Your task to perform on an android device: show emergency info Image 0: 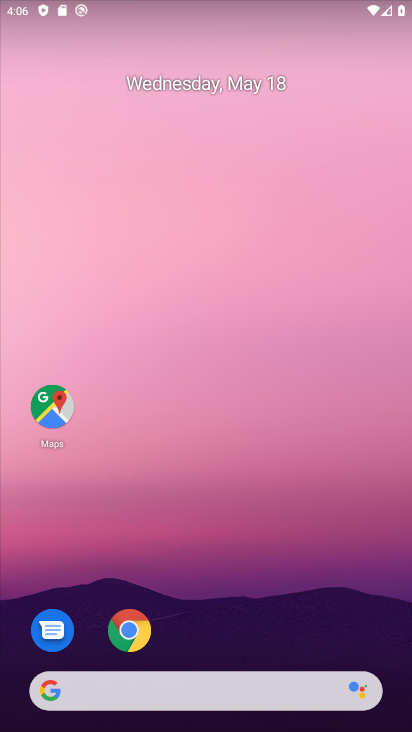
Step 0: drag from (271, 711) to (297, 166)
Your task to perform on an android device: show emergency info Image 1: 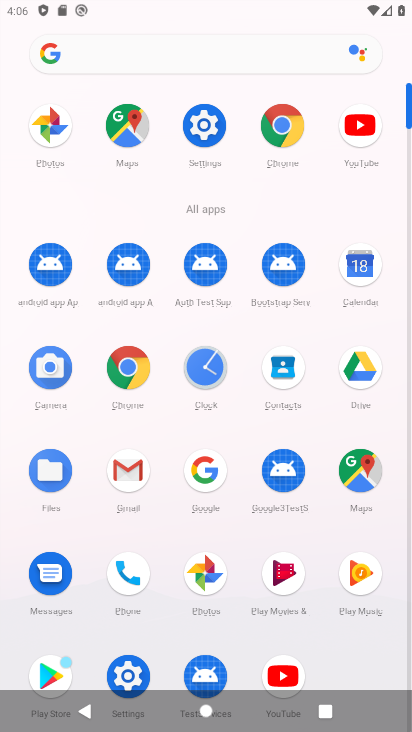
Step 1: click (215, 129)
Your task to perform on an android device: show emergency info Image 2: 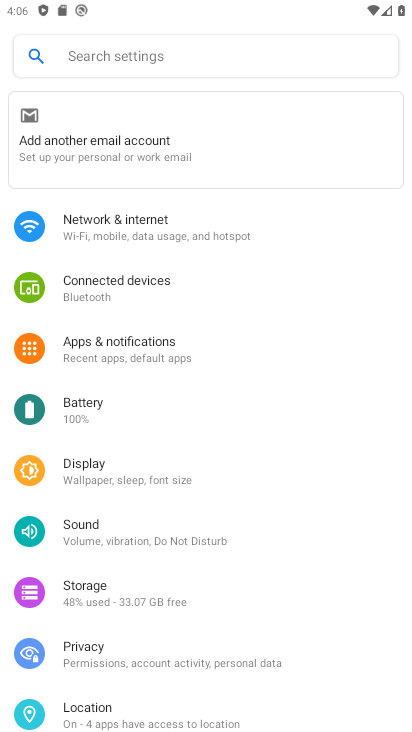
Step 2: click (118, 57)
Your task to perform on an android device: show emergency info Image 3: 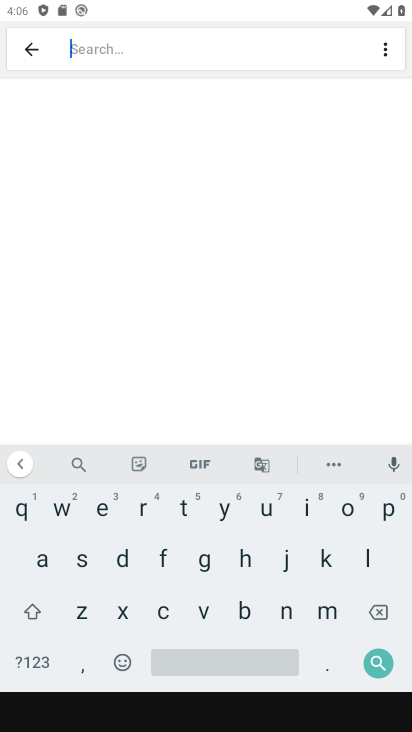
Step 3: click (76, 48)
Your task to perform on an android device: show emergency info Image 4: 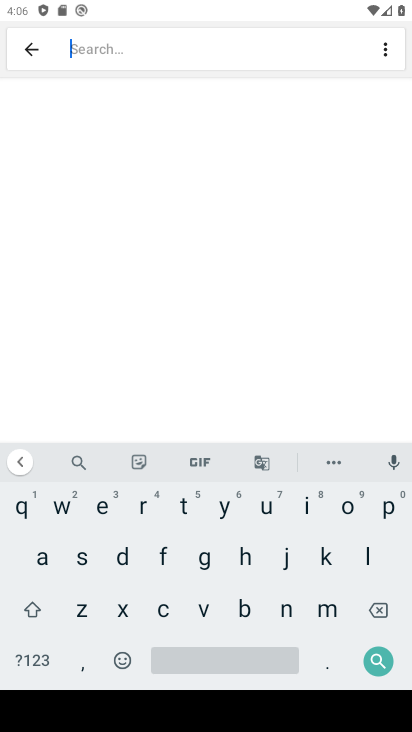
Step 4: click (99, 514)
Your task to perform on an android device: show emergency info Image 5: 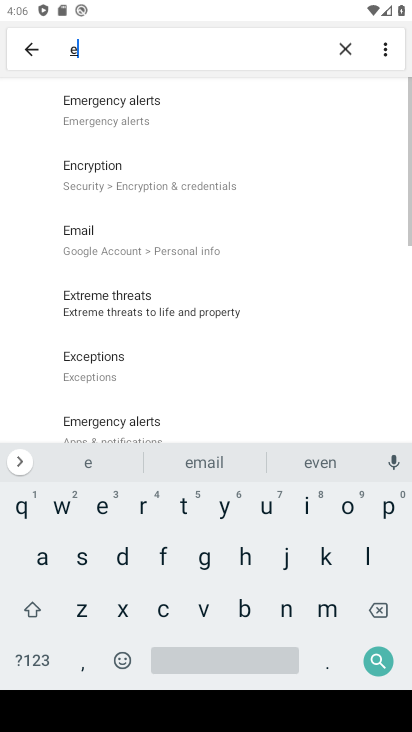
Step 5: click (320, 611)
Your task to perform on an android device: show emergency info Image 6: 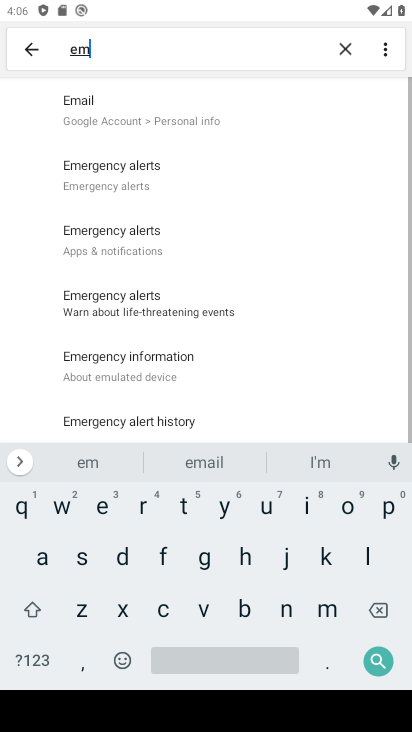
Step 6: click (101, 510)
Your task to perform on an android device: show emergency info Image 7: 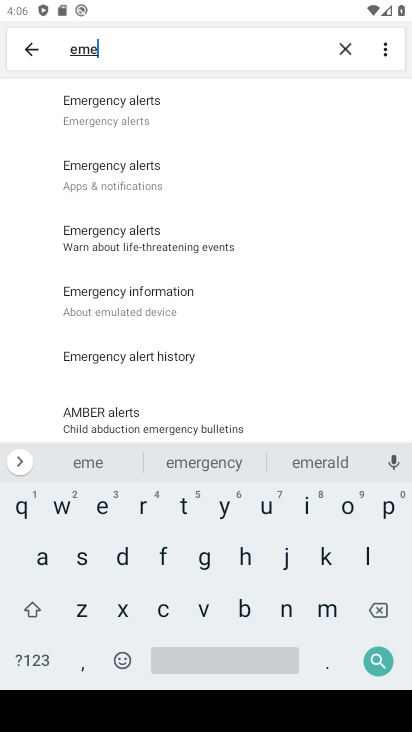
Step 7: click (208, 460)
Your task to perform on an android device: show emergency info Image 8: 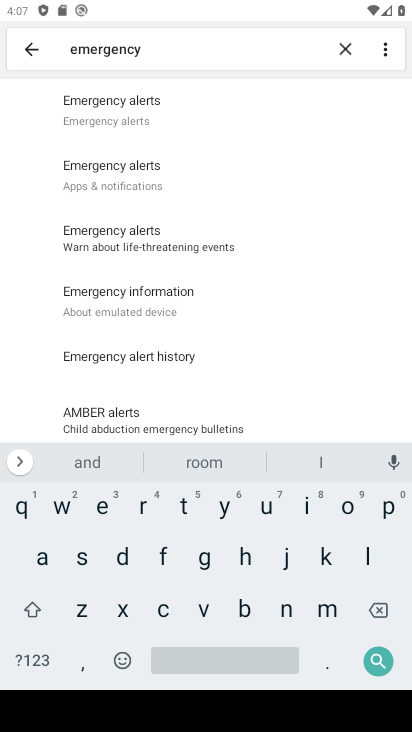
Step 8: click (307, 505)
Your task to perform on an android device: show emergency info Image 9: 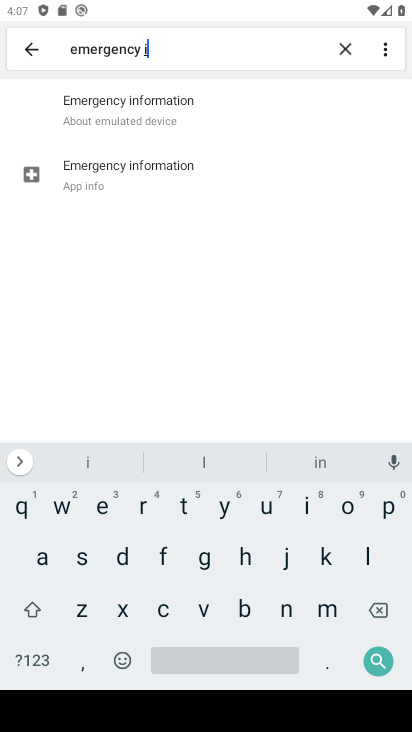
Step 9: click (147, 121)
Your task to perform on an android device: show emergency info Image 10: 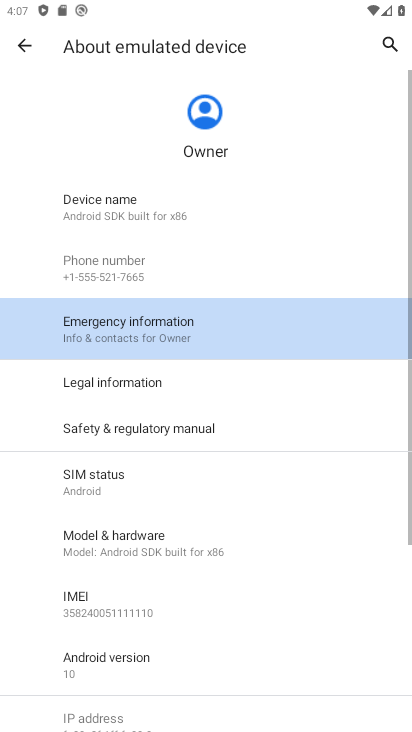
Step 10: click (163, 332)
Your task to perform on an android device: show emergency info Image 11: 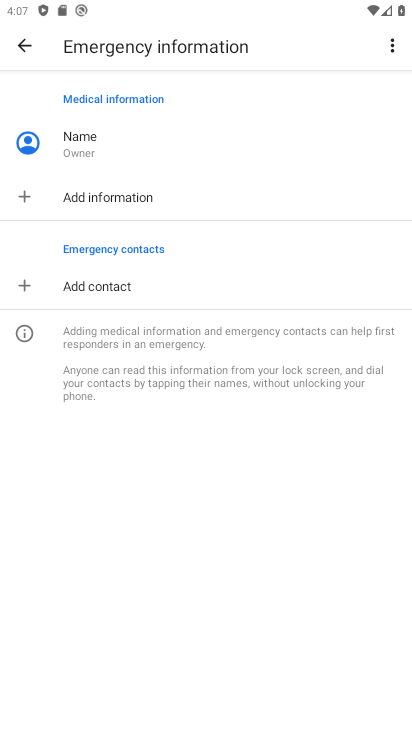
Step 11: task complete